Your task to perform on an android device: turn off javascript in the chrome app Image 0: 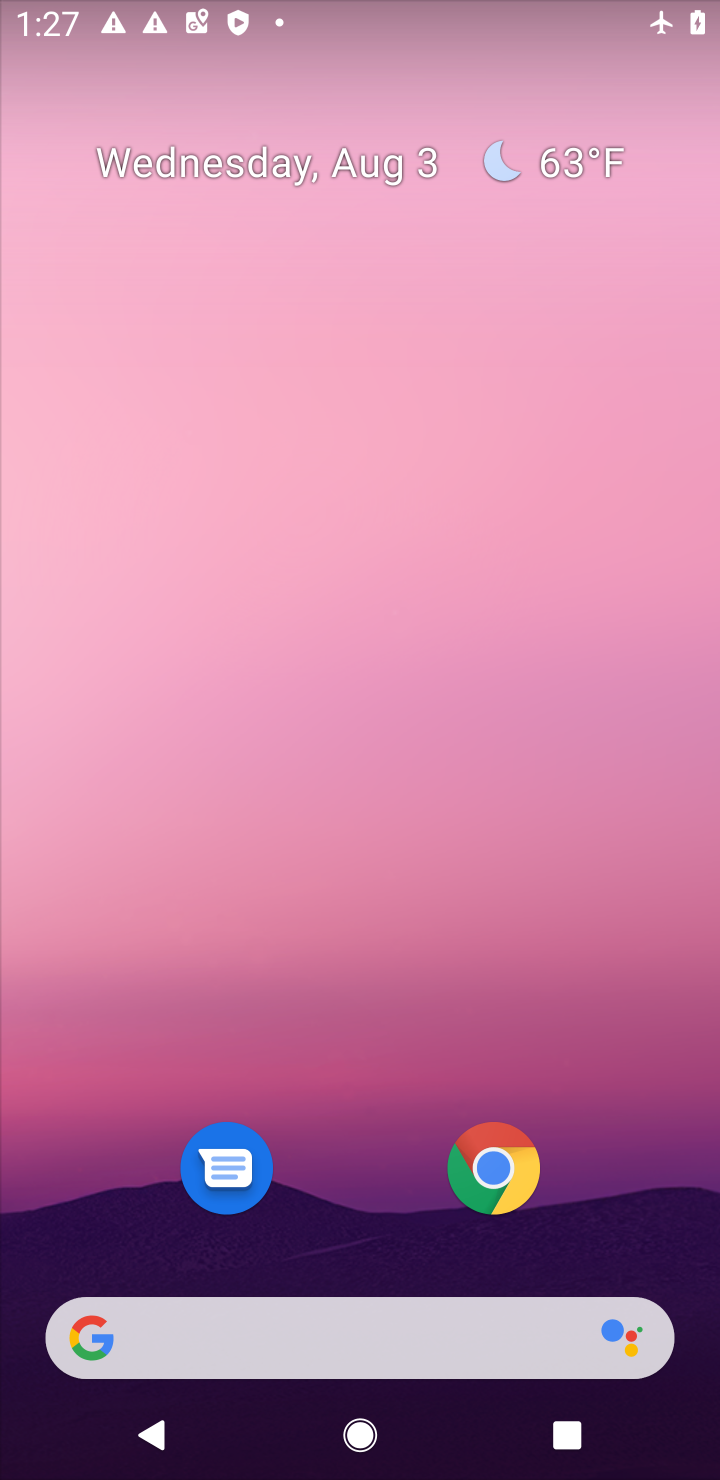
Step 0: press home button
Your task to perform on an android device: turn off javascript in the chrome app Image 1: 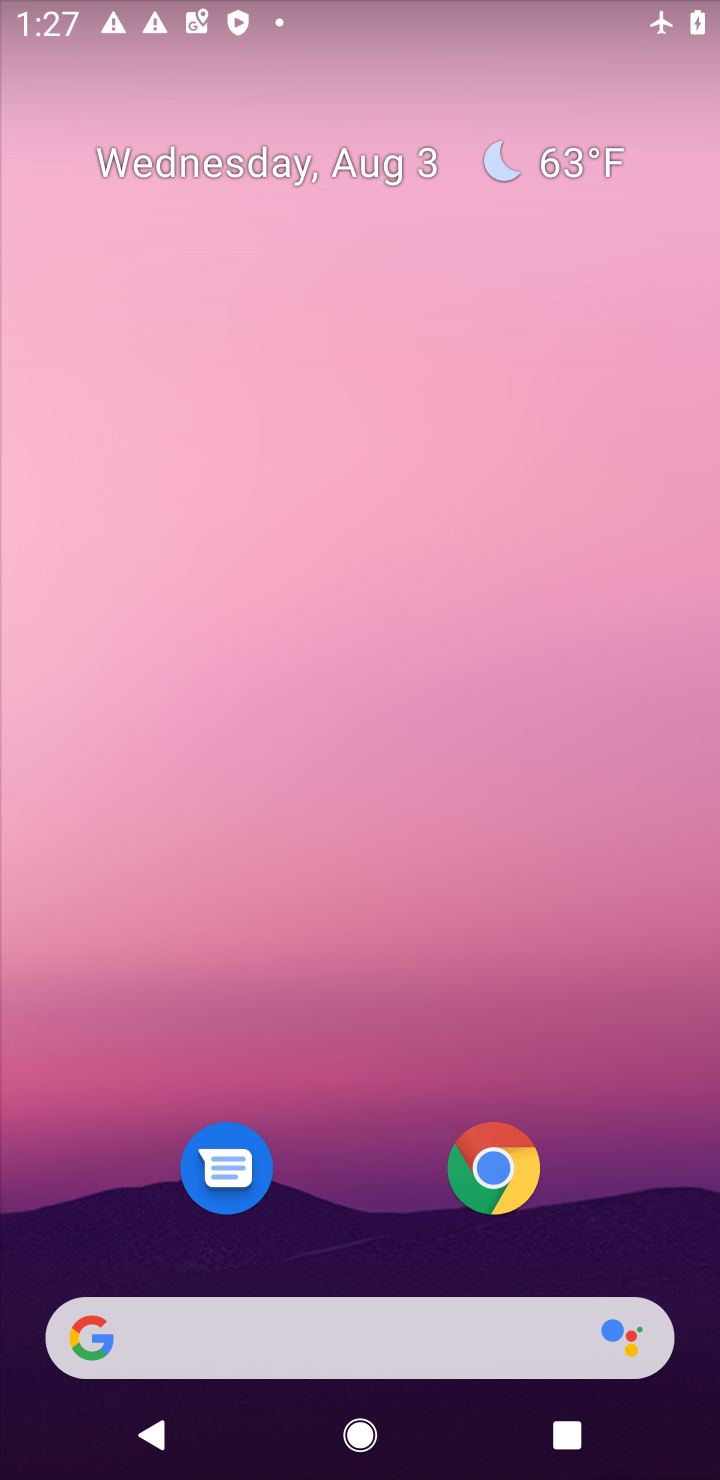
Step 1: click (495, 1171)
Your task to perform on an android device: turn off javascript in the chrome app Image 2: 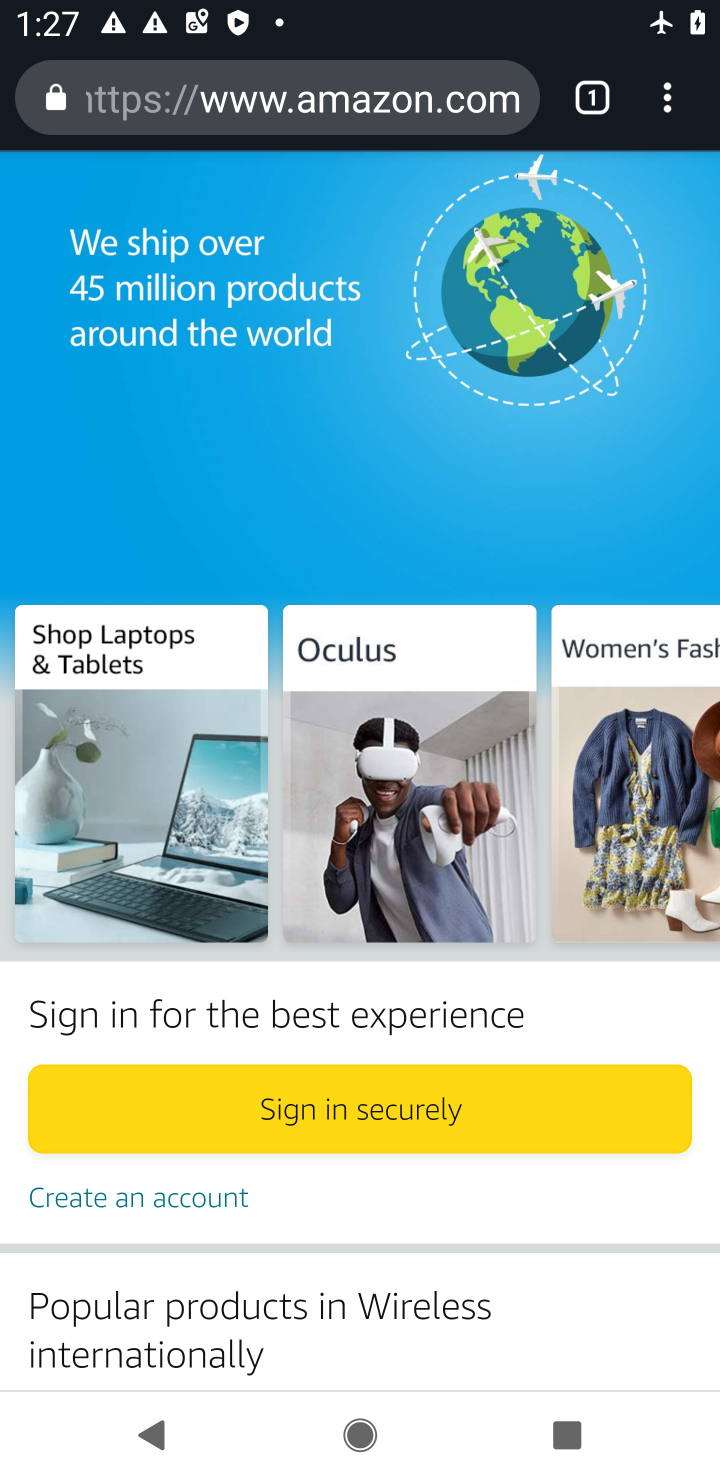
Step 2: click (669, 120)
Your task to perform on an android device: turn off javascript in the chrome app Image 3: 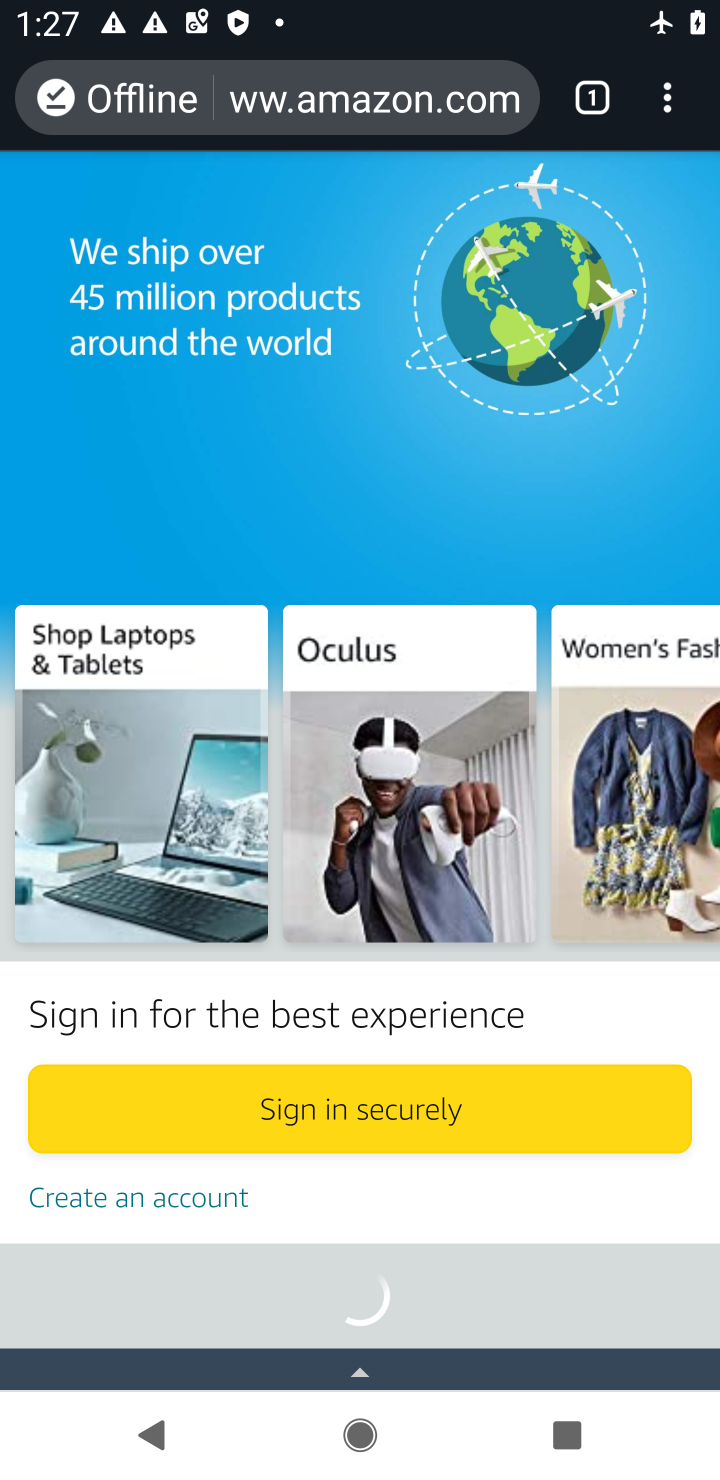
Step 3: click (669, 120)
Your task to perform on an android device: turn off javascript in the chrome app Image 4: 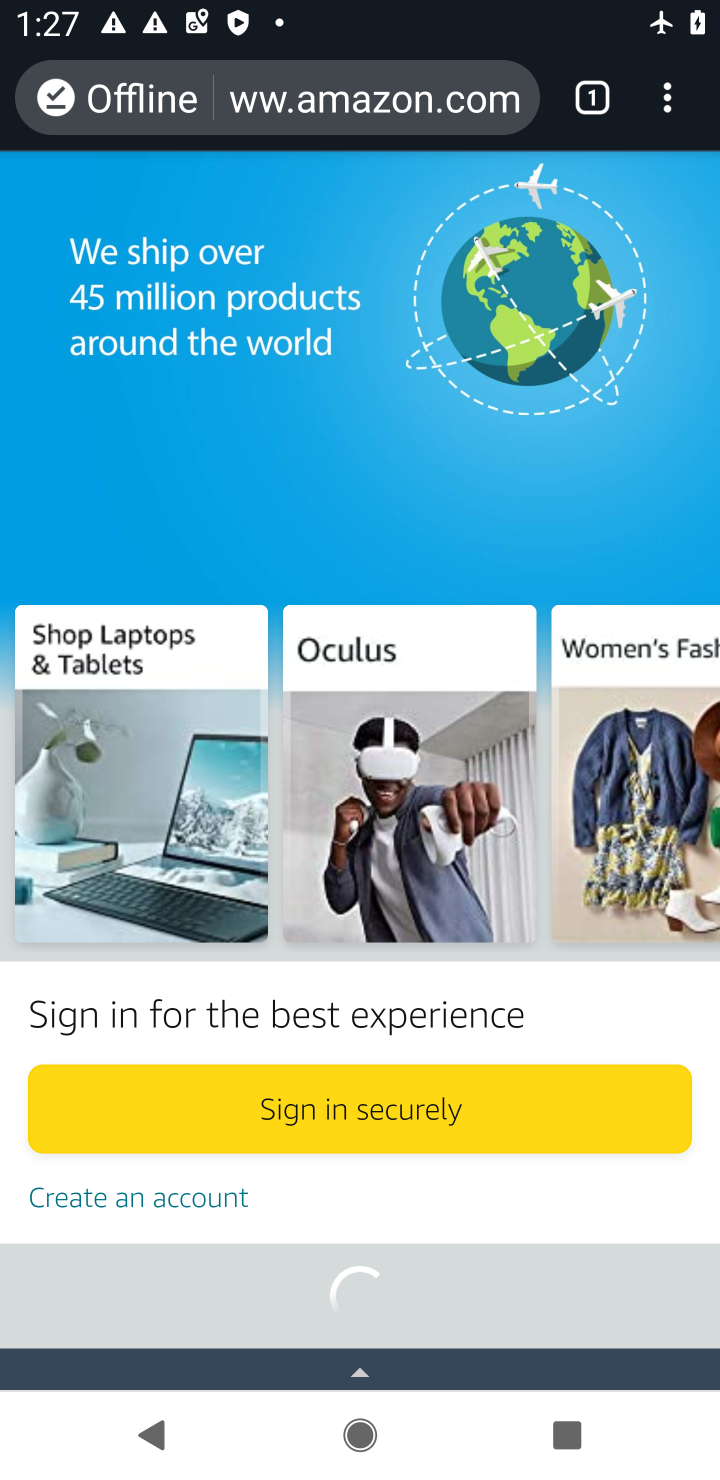
Step 4: click (658, 118)
Your task to perform on an android device: turn off javascript in the chrome app Image 5: 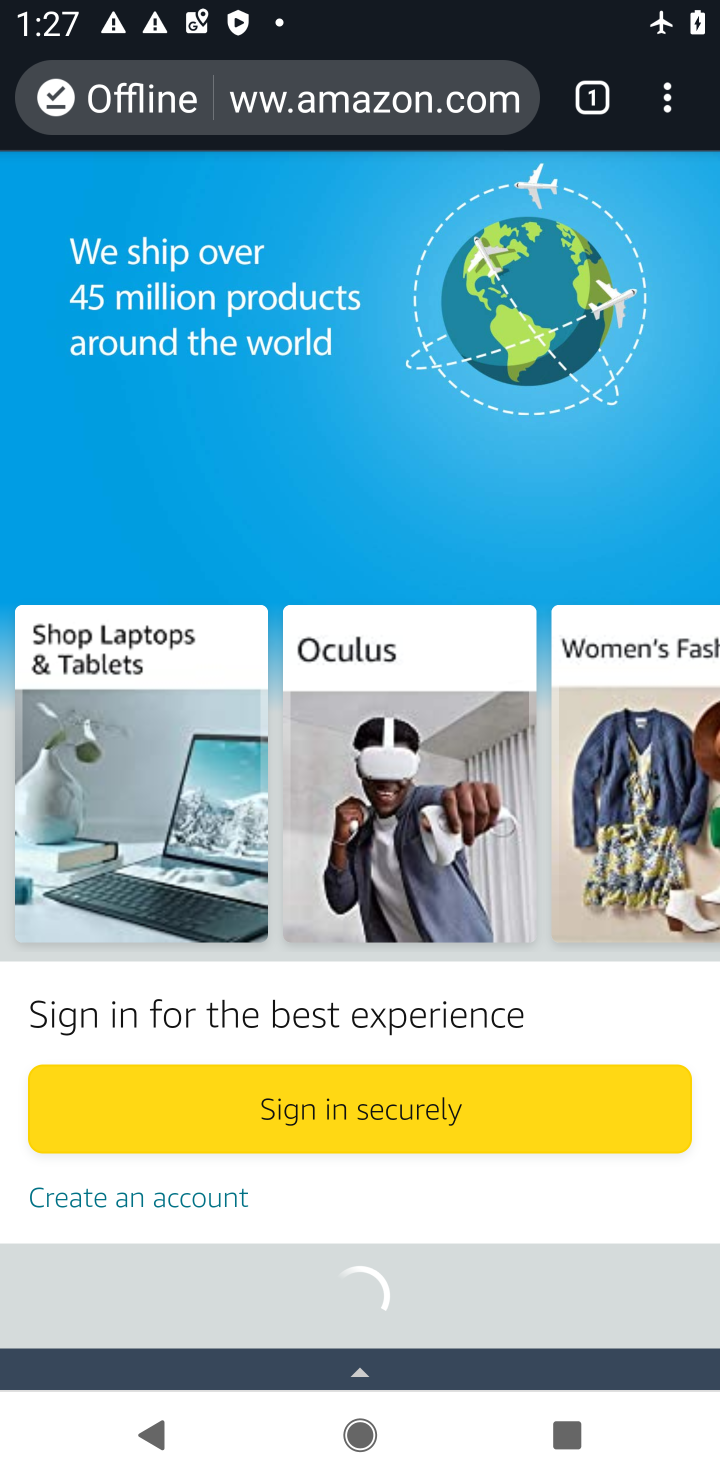
Step 5: click (680, 108)
Your task to perform on an android device: turn off javascript in the chrome app Image 6: 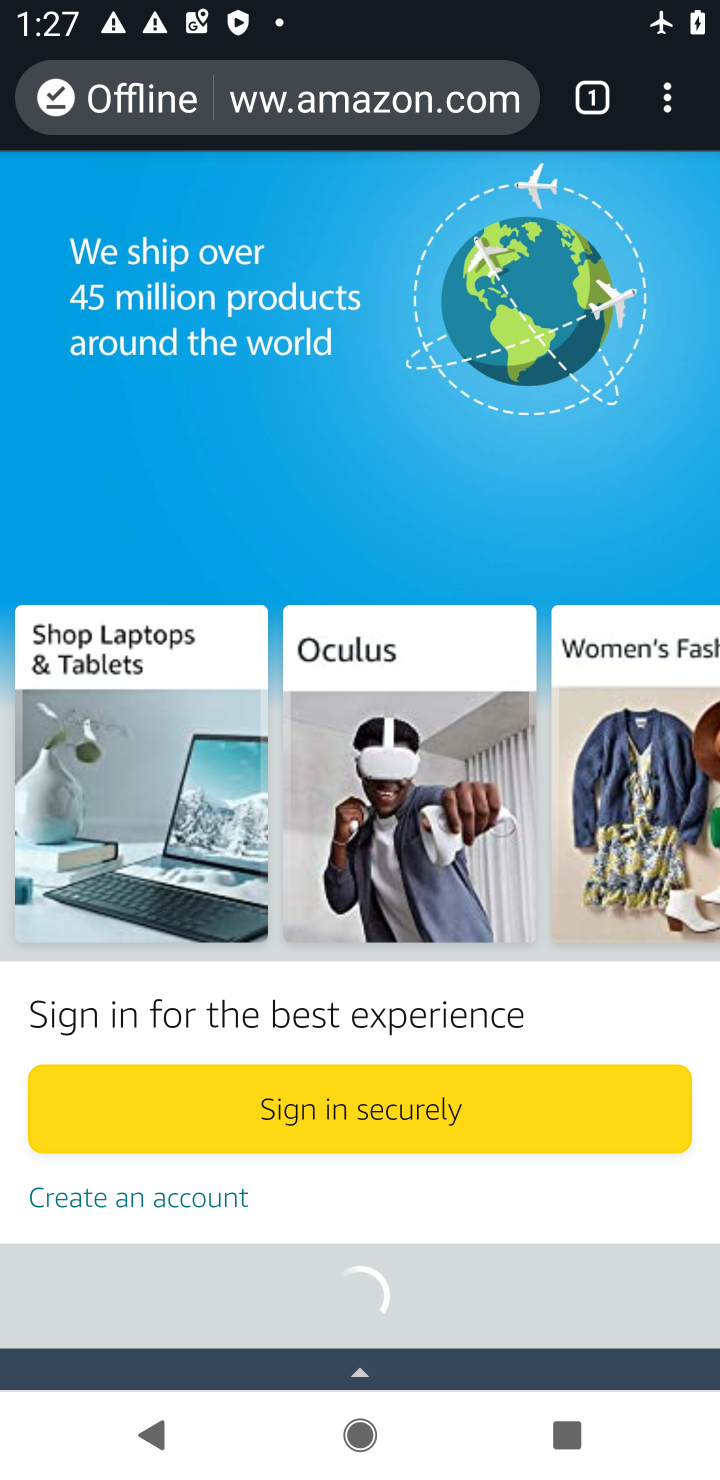
Step 6: task complete